Your task to perform on an android device: toggle location history Image 0: 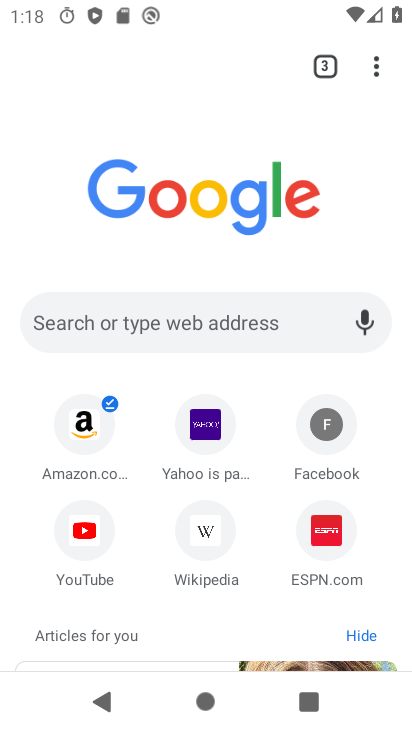
Step 0: press home button
Your task to perform on an android device: toggle location history Image 1: 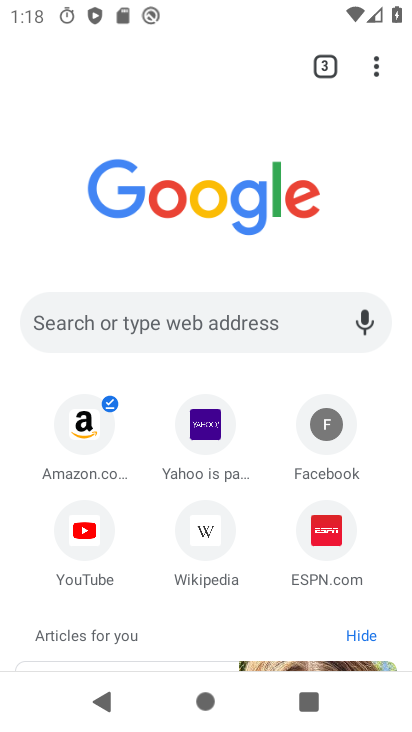
Step 1: press home button
Your task to perform on an android device: toggle location history Image 2: 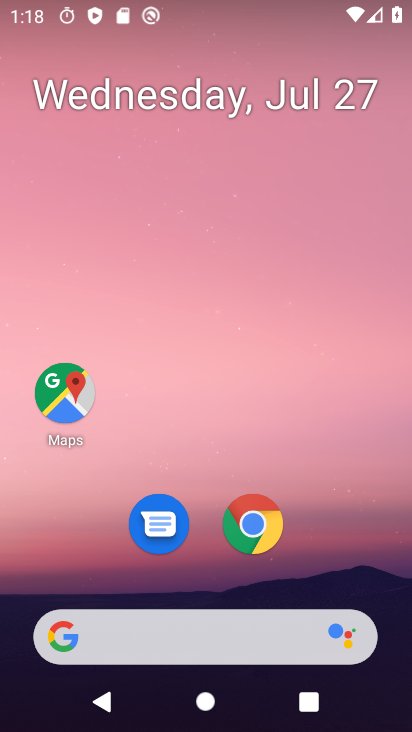
Step 2: drag from (346, 497) to (355, 99)
Your task to perform on an android device: toggle location history Image 3: 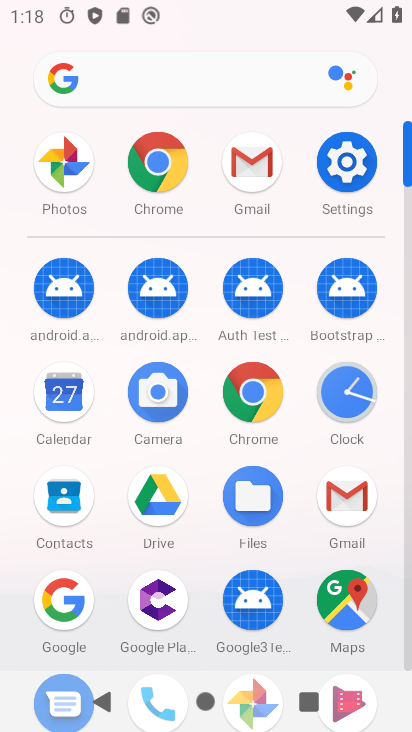
Step 3: click (344, 158)
Your task to perform on an android device: toggle location history Image 4: 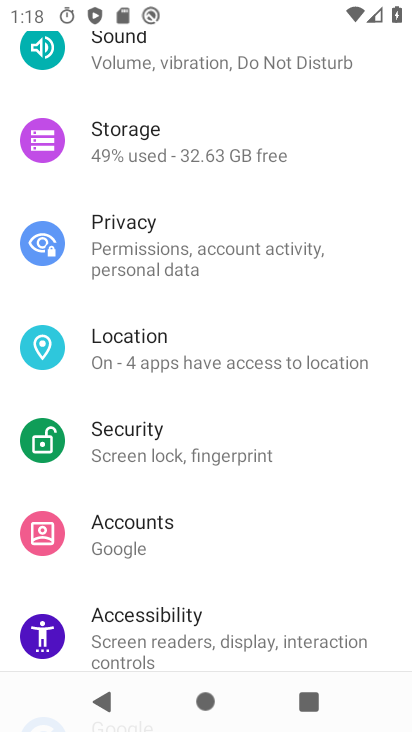
Step 4: click (232, 349)
Your task to perform on an android device: toggle location history Image 5: 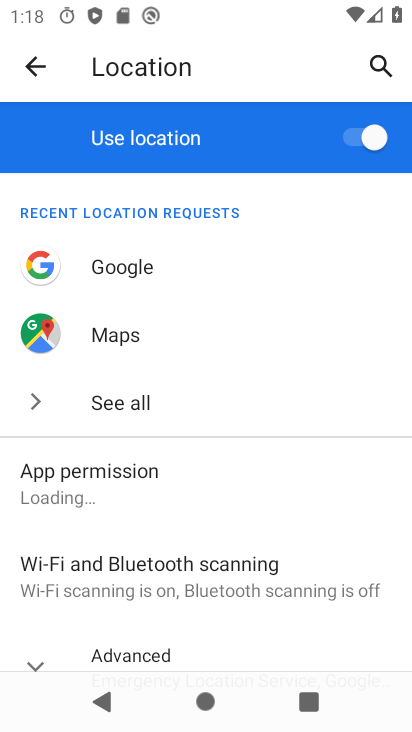
Step 5: drag from (182, 502) to (230, 266)
Your task to perform on an android device: toggle location history Image 6: 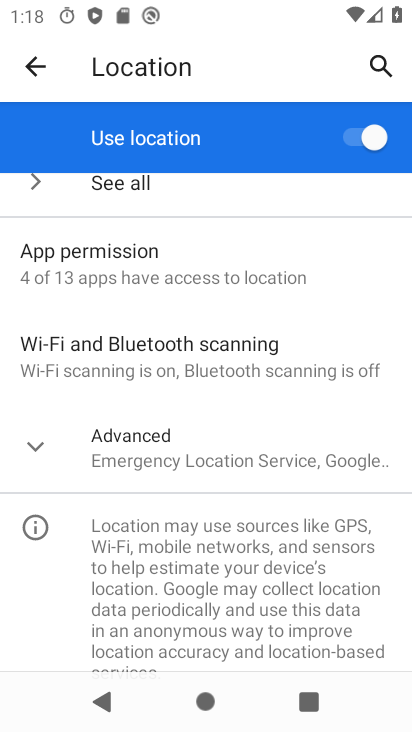
Step 6: click (39, 441)
Your task to perform on an android device: toggle location history Image 7: 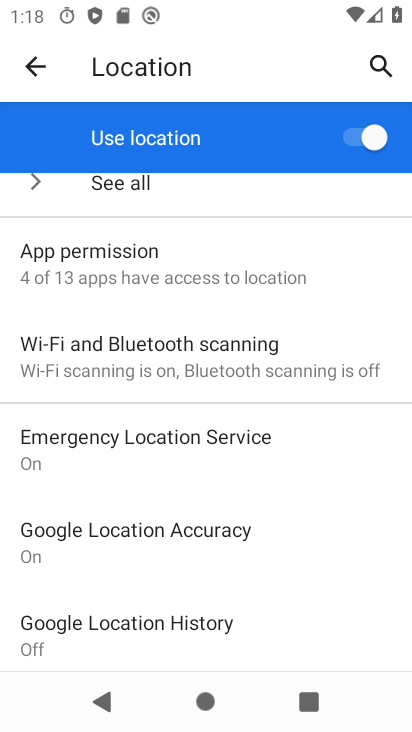
Step 7: click (187, 621)
Your task to perform on an android device: toggle location history Image 8: 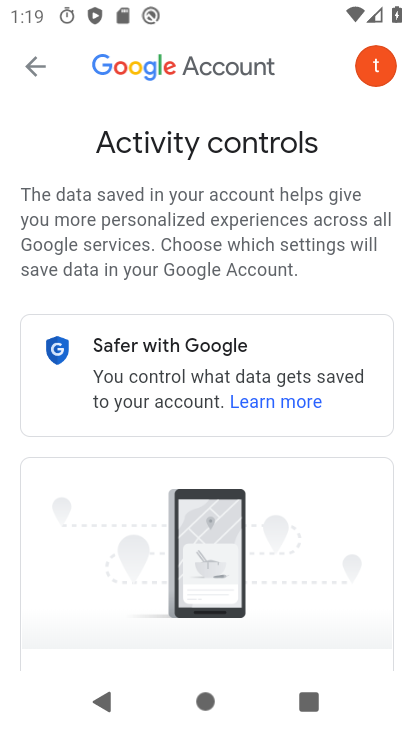
Step 8: drag from (287, 600) to (275, 0)
Your task to perform on an android device: toggle location history Image 9: 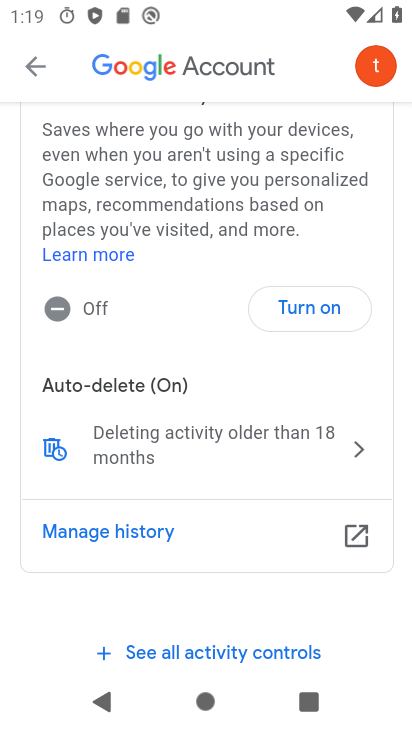
Step 9: click (311, 307)
Your task to perform on an android device: toggle location history Image 10: 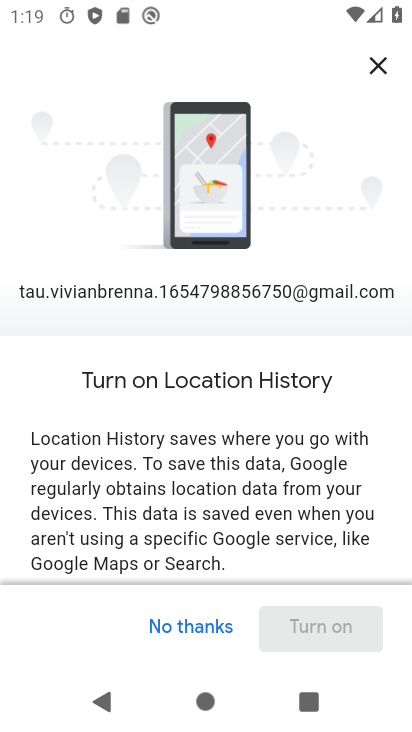
Step 10: drag from (290, 466) to (304, 4)
Your task to perform on an android device: toggle location history Image 11: 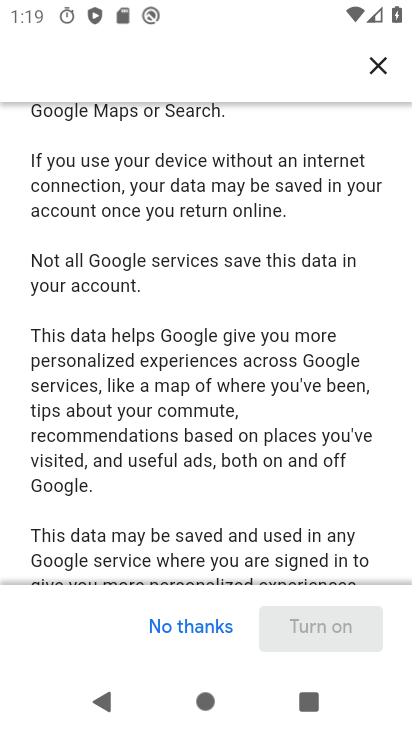
Step 11: drag from (268, 483) to (313, 80)
Your task to perform on an android device: toggle location history Image 12: 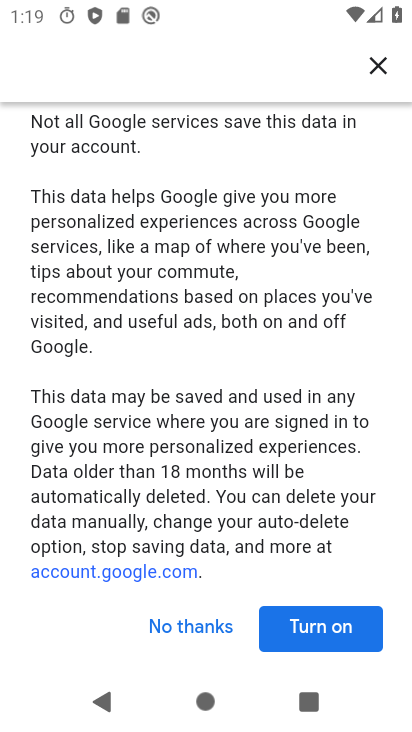
Step 12: click (338, 631)
Your task to perform on an android device: toggle location history Image 13: 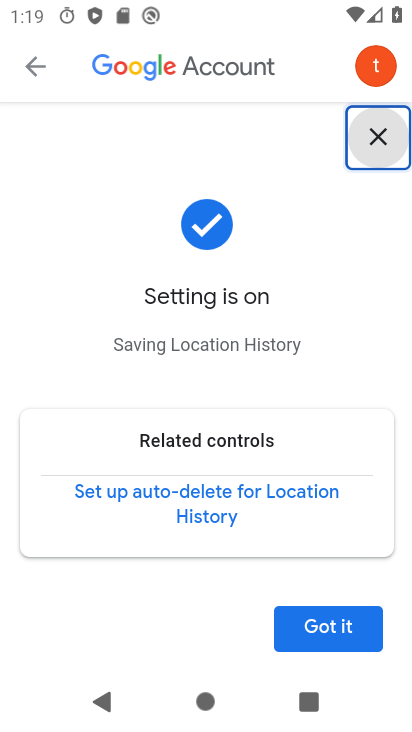
Step 13: click (338, 633)
Your task to perform on an android device: toggle location history Image 14: 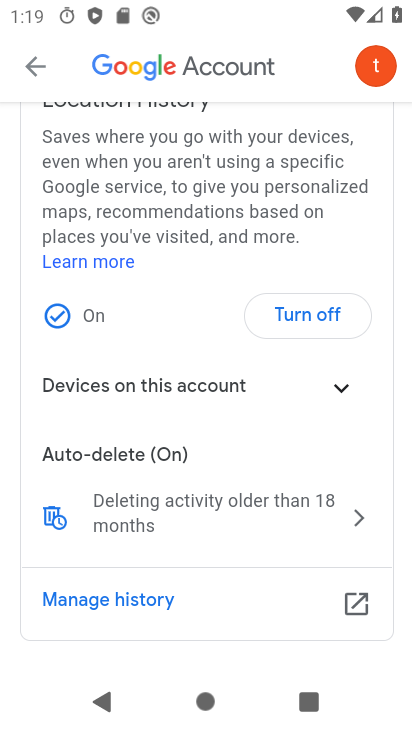
Step 14: task complete